Your task to perform on an android device: turn notification dots off Image 0: 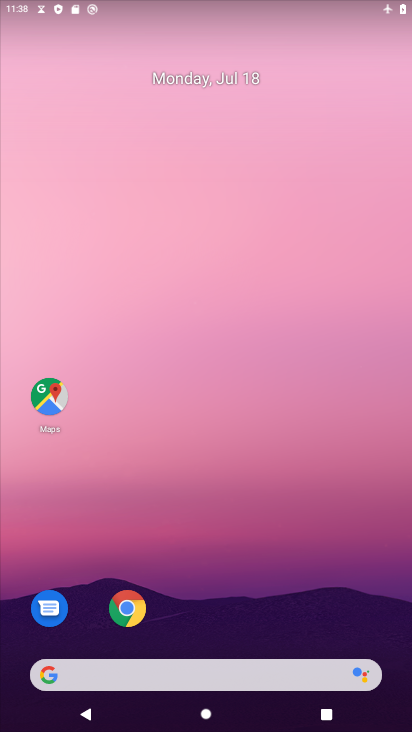
Step 0: drag from (282, 484) to (324, 122)
Your task to perform on an android device: turn notification dots off Image 1: 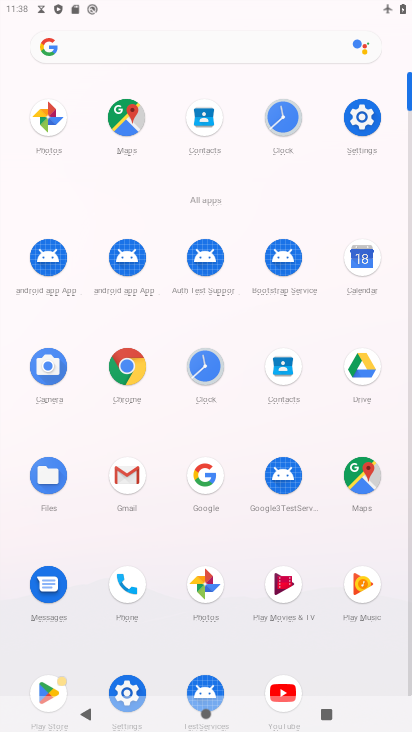
Step 1: click (374, 105)
Your task to perform on an android device: turn notification dots off Image 2: 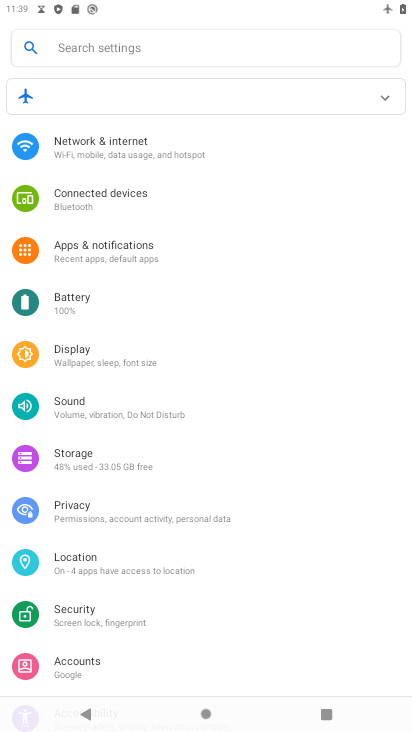
Step 2: click (90, 266)
Your task to perform on an android device: turn notification dots off Image 3: 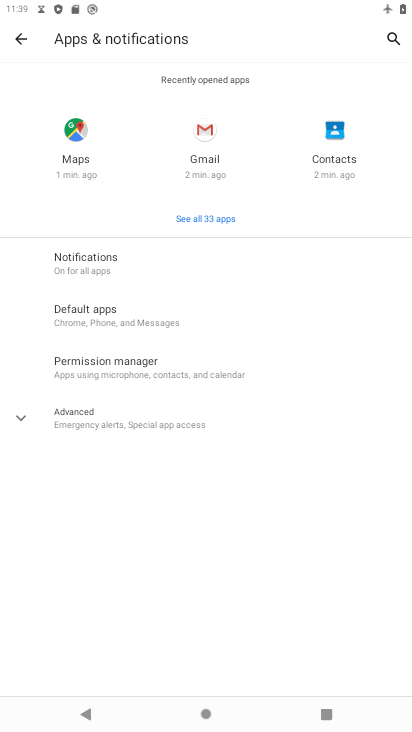
Step 3: click (67, 255)
Your task to perform on an android device: turn notification dots off Image 4: 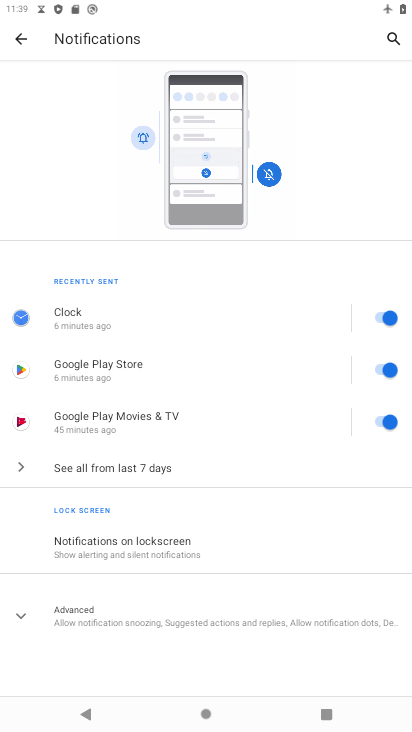
Step 4: click (128, 619)
Your task to perform on an android device: turn notification dots off Image 5: 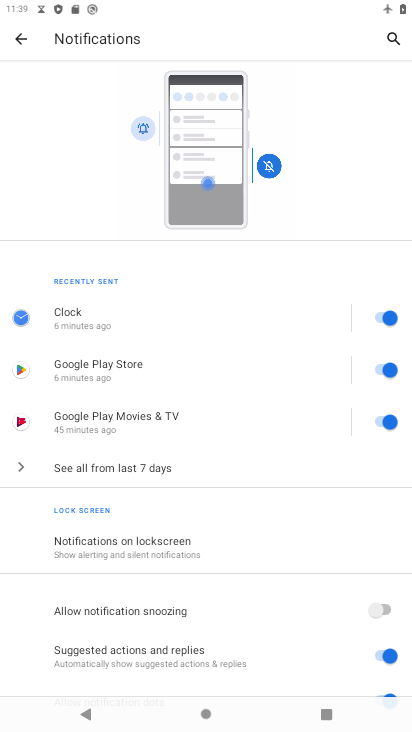
Step 5: drag from (244, 654) to (214, 441)
Your task to perform on an android device: turn notification dots off Image 6: 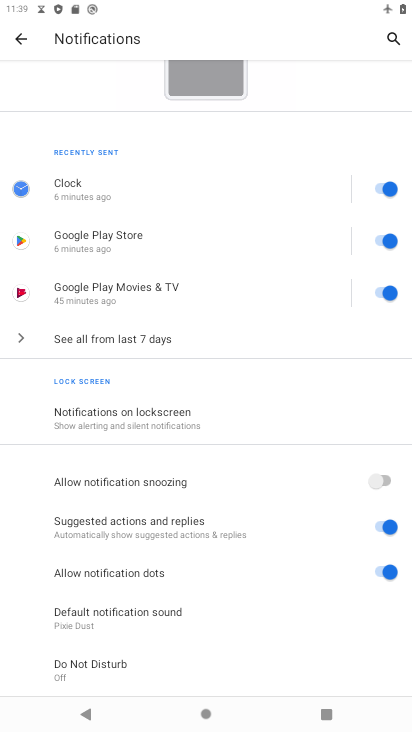
Step 6: click (380, 573)
Your task to perform on an android device: turn notification dots off Image 7: 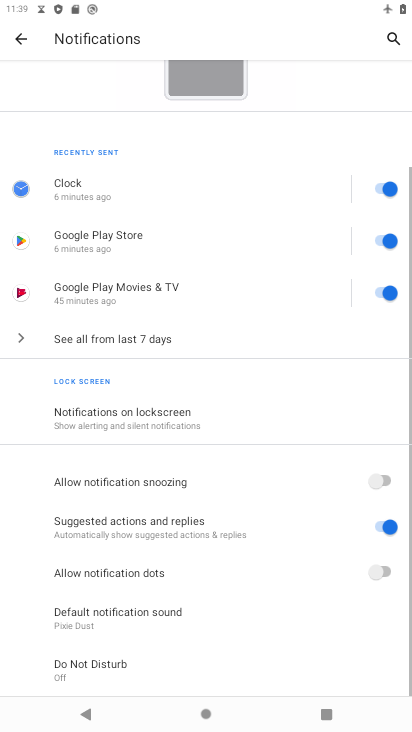
Step 7: task complete